Your task to perform on an android device: turn on priority inbox in the gmail app Image 0: 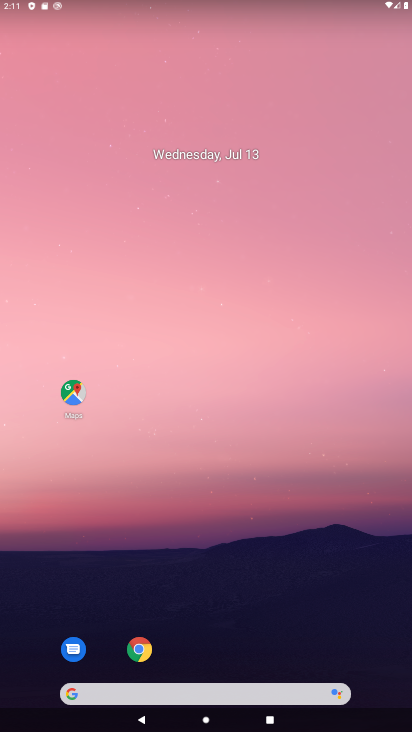
Step 0: drag from (209, 535) to (219, 163)
Your task to perform on an android device: turn on priority inbox in the gmail app Image 1: 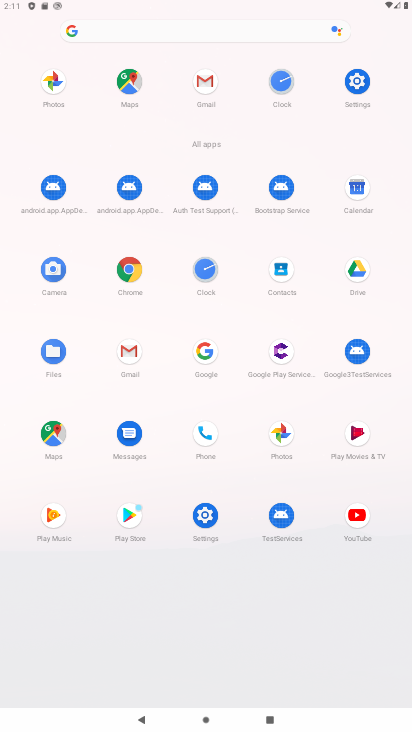
Step 1: click (128, 351)
Your task to perform on an android device: turn on priority inbox in the gmail app Image 2: 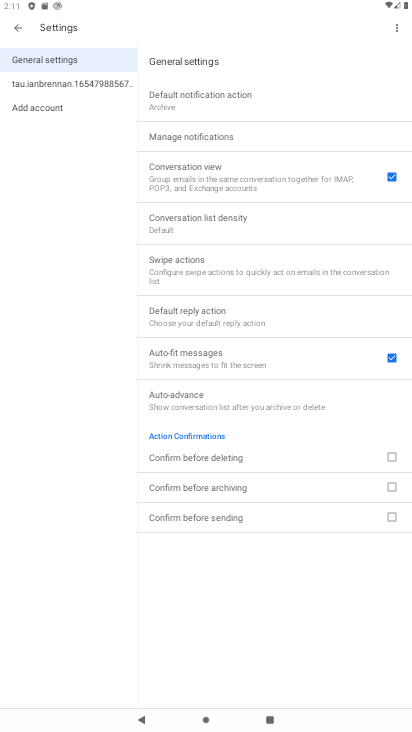
Step 2: click (46, 82)
Your task to perform on an android device: turn on priority inbox in the gmail app Image 3: 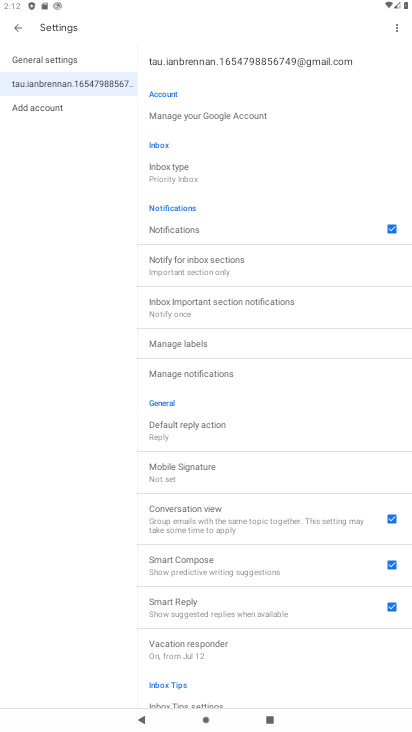
Step 3: click (168, 168)
Your task to perform on an android device: turn on priority inbox in the gmail app Image 4: 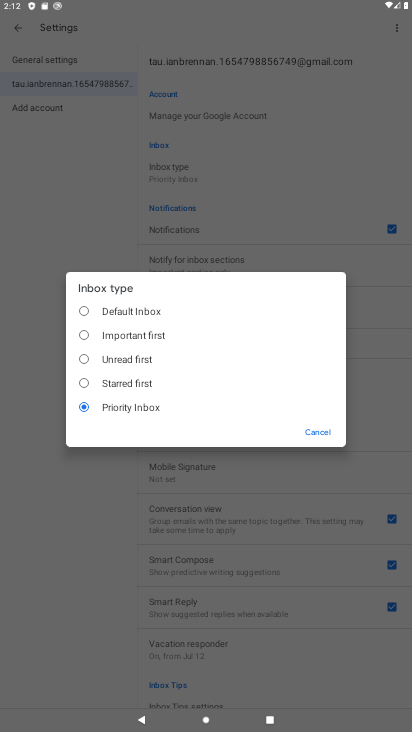
Step 4: task complete